Your task to perform on an android device: turn on airplane mode Image 0: 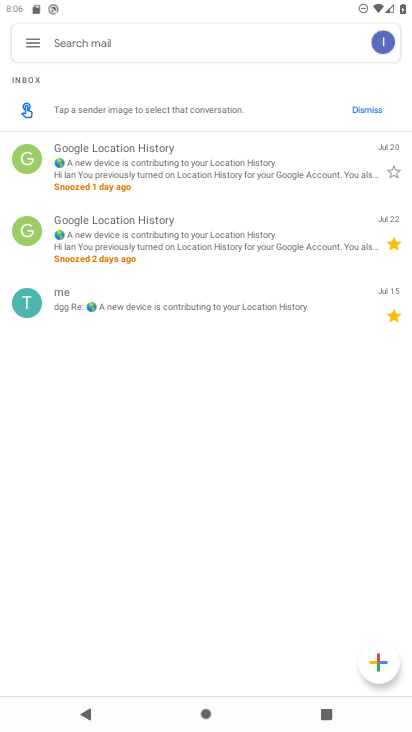
Step 0: press home button
Your task to perform on an android device: turn on airplane mode Image 1: 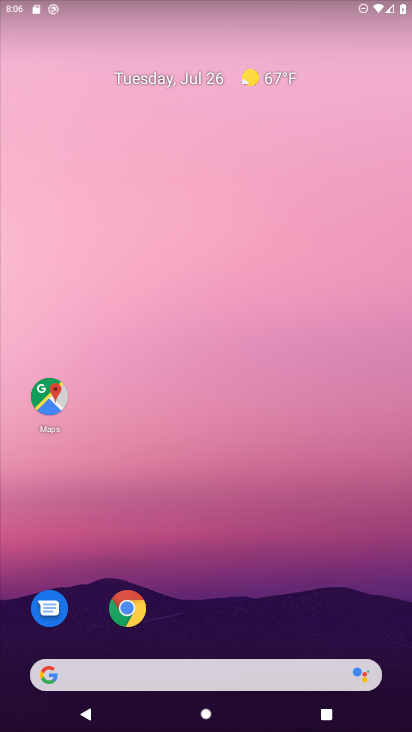
Step 1: drag from (229, 629) to (151, 9)
Your task to perform on an android device: turn on airplane mode Image 2: 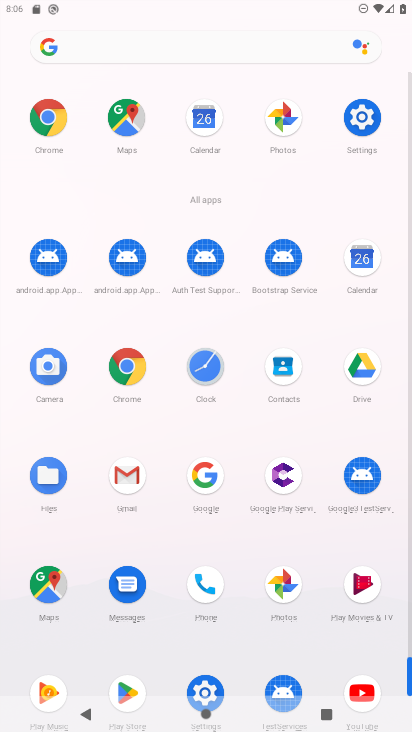
Step 2: click (203, 681)
Your task to perform on an android device: turn on airplane mode Image 3: 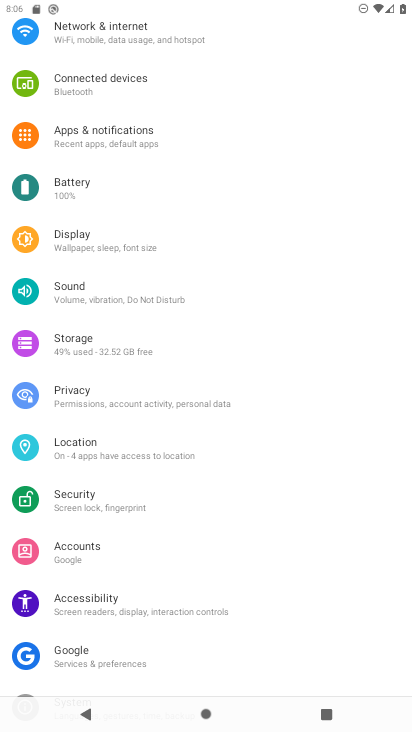
Step 3: click (137, 29)
Your task to perform on an android device: turn on airplane mode Image 4: 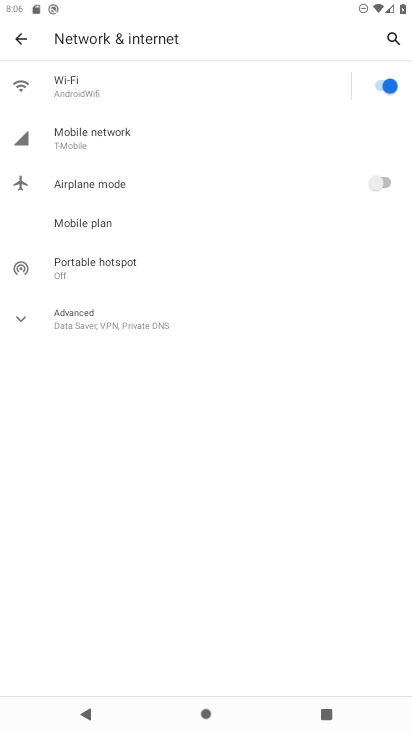
Step 4: click (397, 186)
Your task to perform on an android device: turn on airplane mode Image 5: 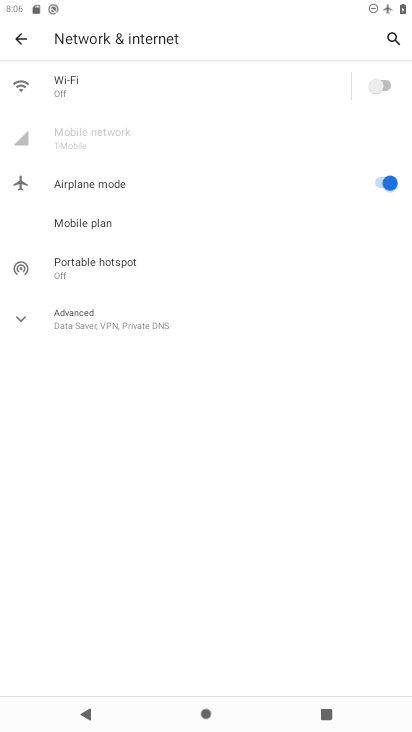
Step 5: task complete